Your task to perform on an android device: visit the assistant section in the google photos Image 0: 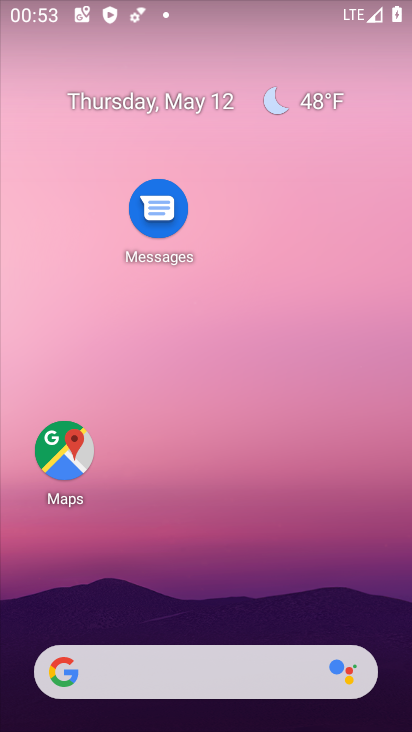
Step 0: drag from (193, 638) to (107, 18)
Your task to perform on an android device: visit the assistant section in the google photos Image 1: 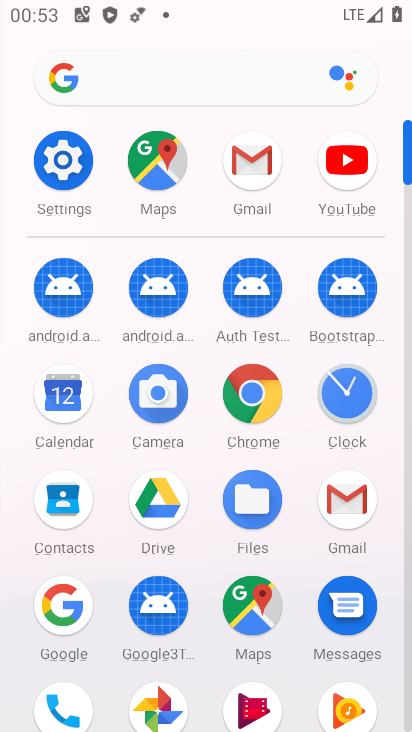
Step 1: click (166, 693)
Your task to perform on an android device: visit the assistant section in the google photos Image 2: 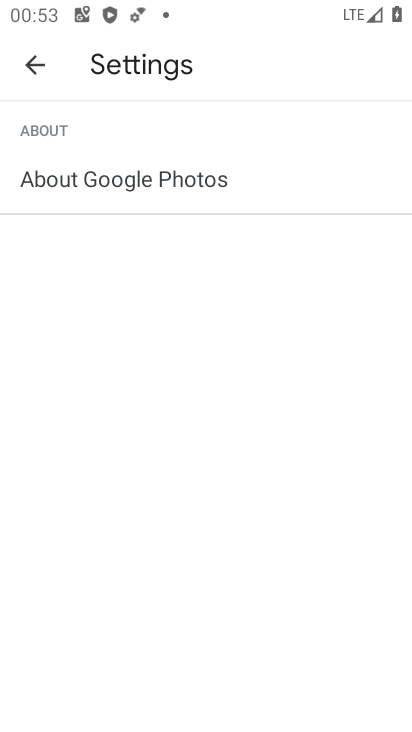
Step 2: click (28, 68)
Your task to perform on an android device: visit the assistant section in the google photos Image 3: 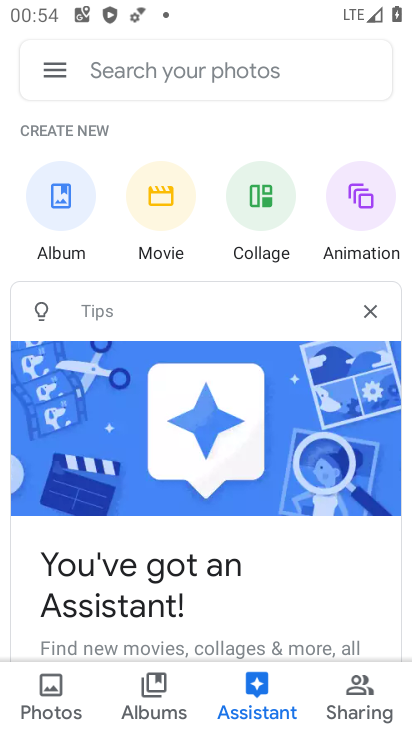
Step 3: task complete